Your task to perform on an android device: toggle airplane mode Image 0: 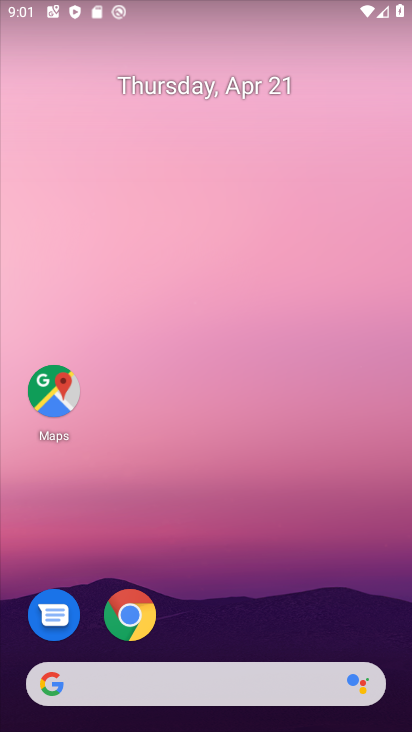
Step 0: drag from (220, 727) to (220, 143)
Your task to perform on an android device: toggle airplane mode Image 1: 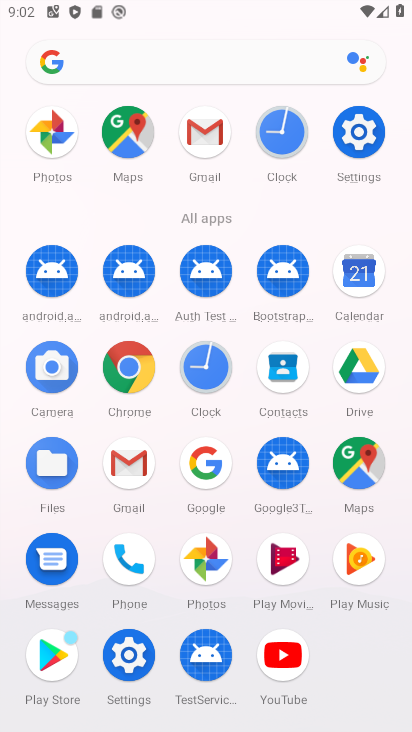
Step 1: click (361, 135)
Your task to perform on an android device: toggle airplane mode Image 2: 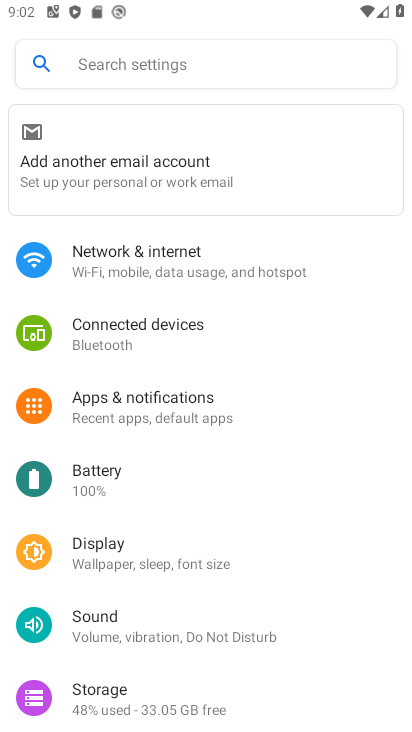
Step 2: click (128, 272)
Your task to perform on an android device: toggle airplane mode Image 3: 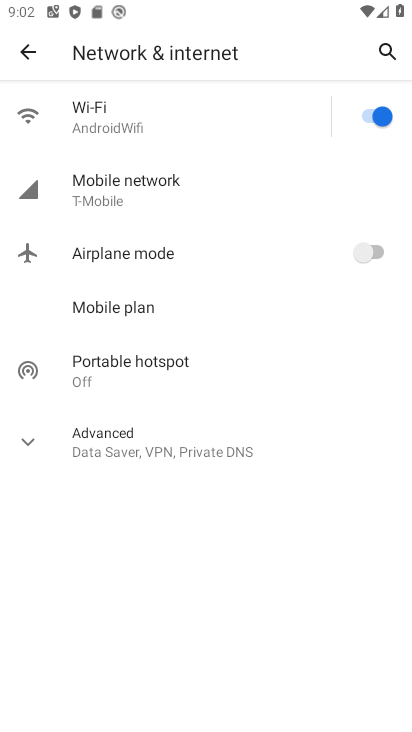
Step 3: click (376, 249)
Your task to perform on an android device: toggle airplane mode Image 4: 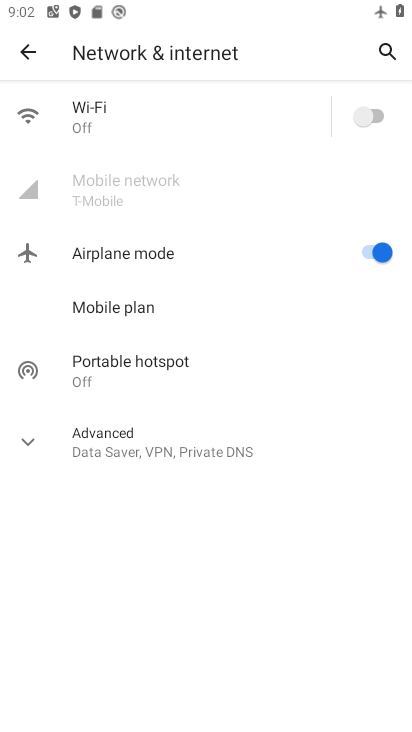
Step 4: task complete